Your task to perform on an android device: check google app version Image 0: 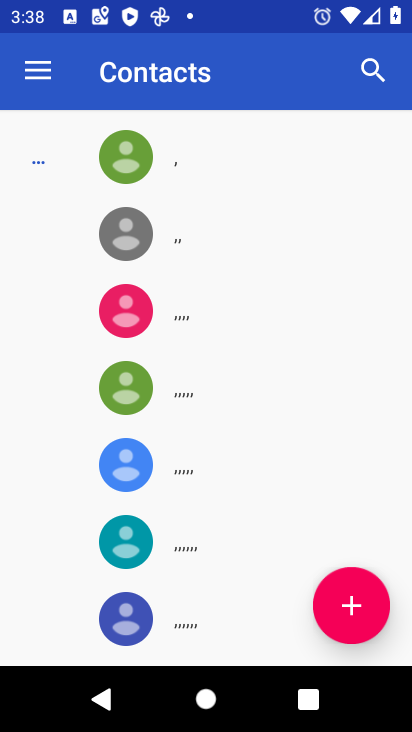
Step 0: press home button
Your task to perform on an android device: check google app version Image 1: 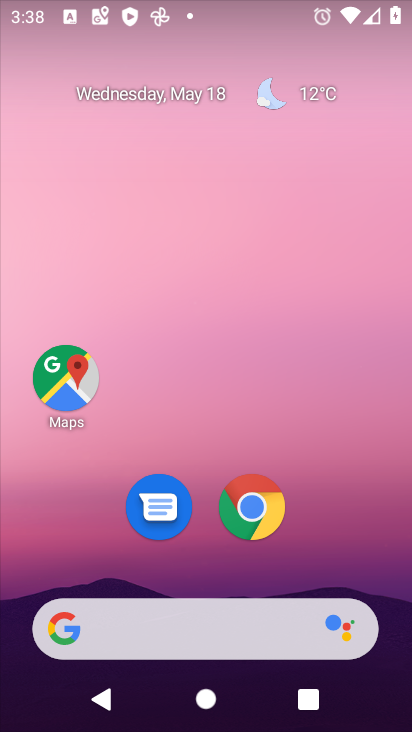
Step 1: click (253, 507)
Your task to perform on an android device: check google app version Image 2: 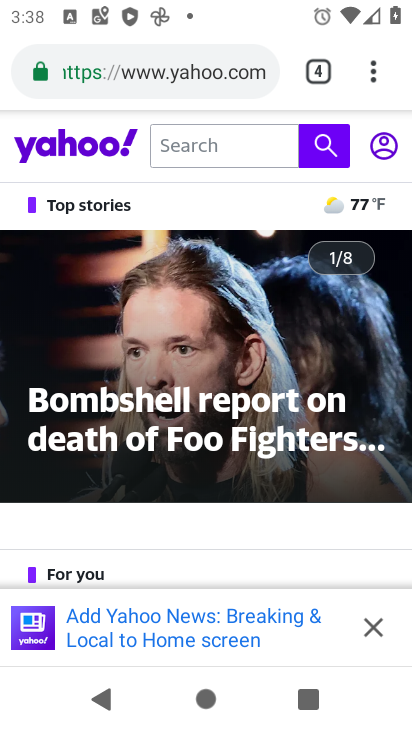
Step 2: click (370, 78)
Your task to perform on an android device: check google app version Image 3: 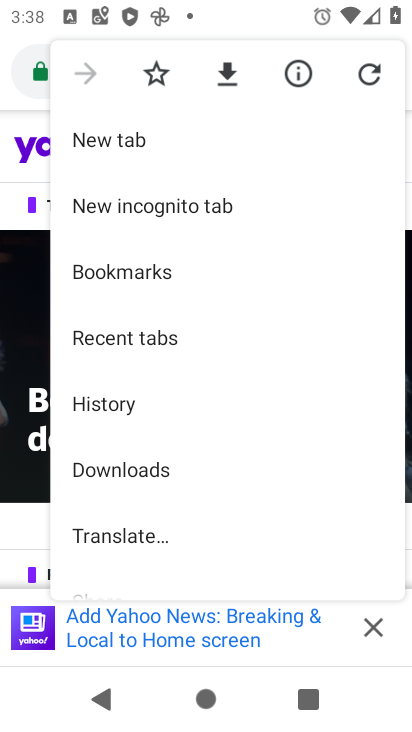
Step 3: drag from (246, 533) to (241, 136)
Your task to perform on an android device: check google app version Image 4: 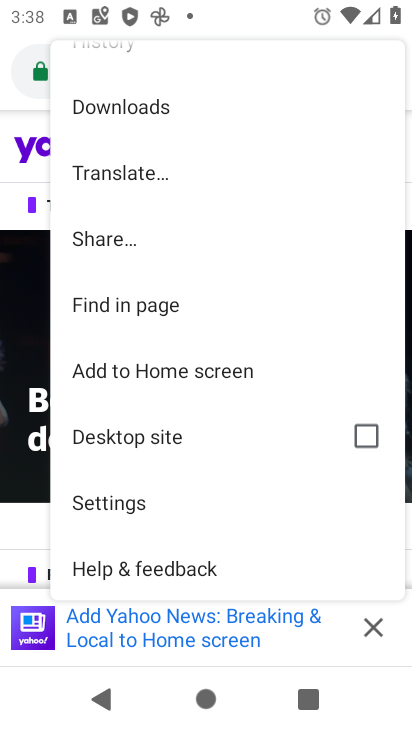
Step 4: click (111, 492)
Your task to perform on an android device: check google app version Image 5: 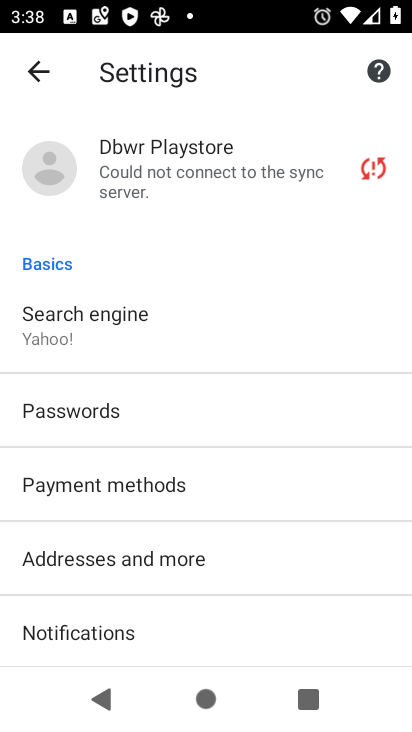
Step 5: drag from (241, 600) to (239, 229)
Your task to perform on an android device: check google app version Image 6: 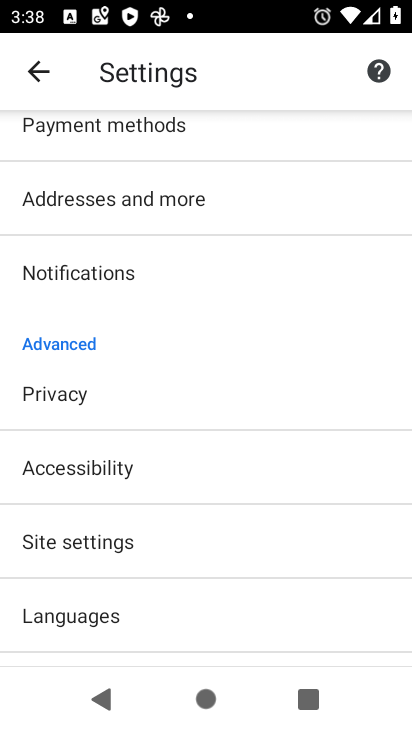
Step 6: drag from (220, 619) to (187, 359)
Your task to perform on an android device: check google app version Image 7: 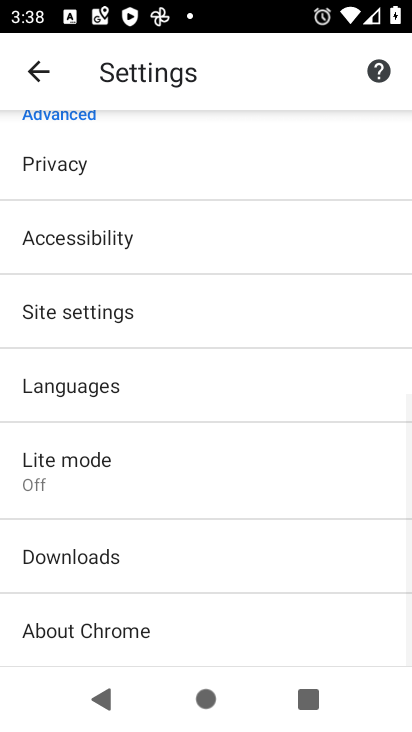
Step 7: click (87, 641)
Your task to perform on an android device: check google app version Image 8: 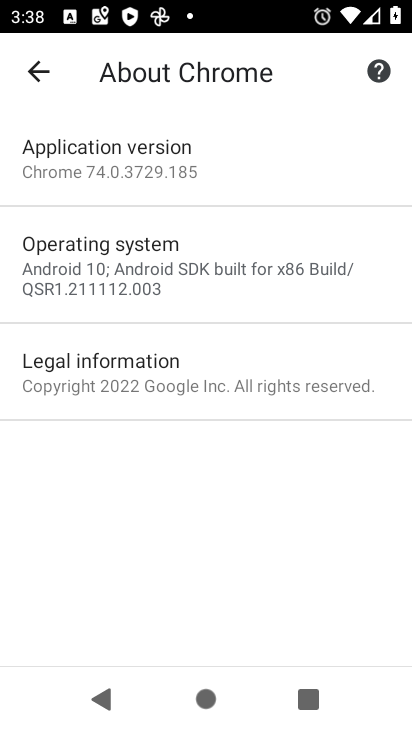
Step 8: click (130, 158)
Your task to perform on an android device: check google app version Image 9: 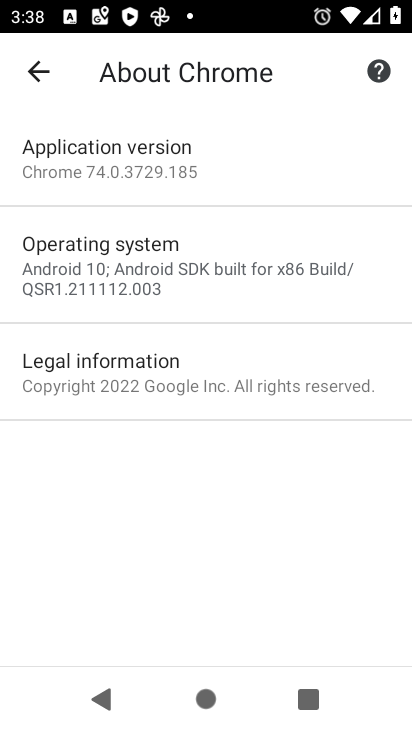
Step 9: task complete